Your task to perform on an android device: stop showing notifications on the lock screen Image 0: 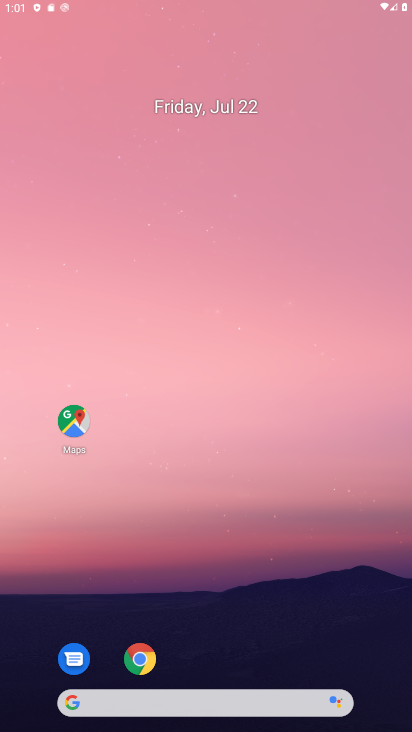
Step 0: task complete